Your task to perform on an android device: turn notification dots on Image 0: 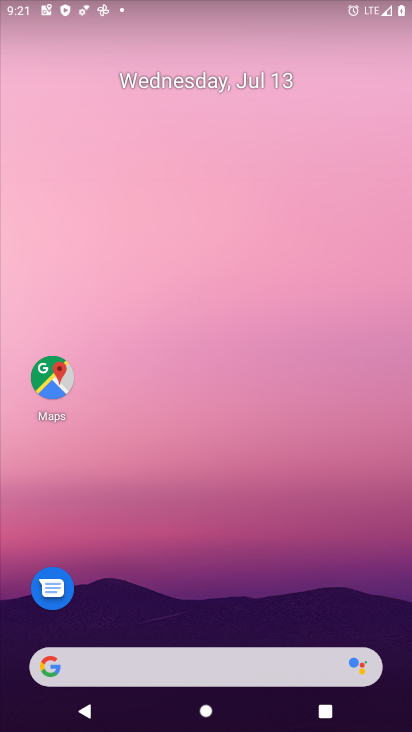
Step 0: drag from (150, 679) to (283, 35)
Your task to perform on an android device: turn notification dots on Image 1: 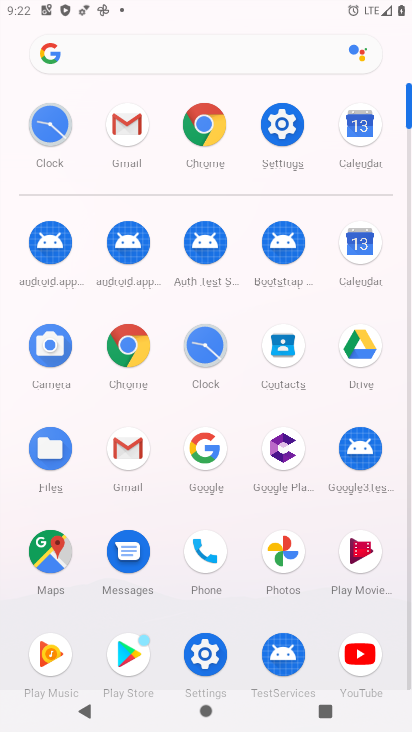
Step 1: click (264, 132)
Your task to perform on an android device: turn notification dots on Image 2: 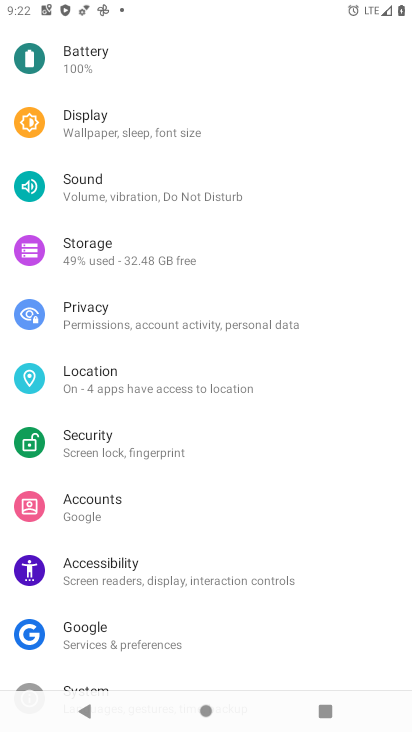
Step 2: drag from (249, 581) to (285, 288)
Your task to perform on an android device: turn notification dots on Image 3: 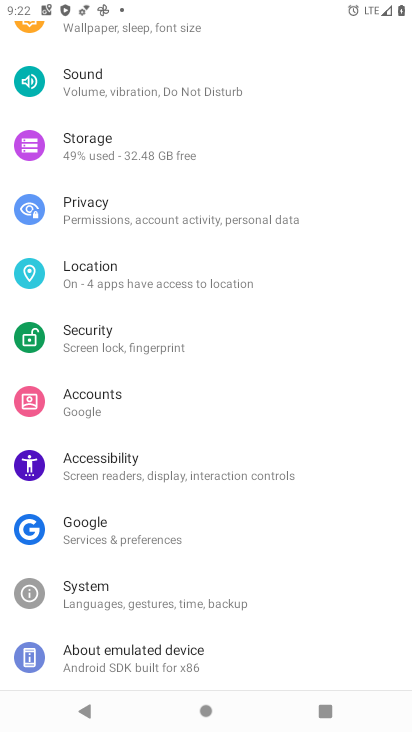
Step 3: drag from (284, 605) to (338, 155)
Your task to perform on an android device: turn notification dots on Image 4: 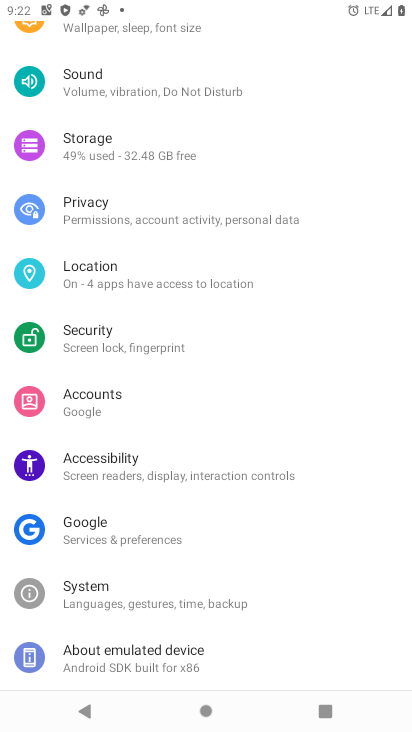
Step 4: drag from (281, 171) to (169, 682)
Your task to perform on an android device: turn notification dots on Image 5: 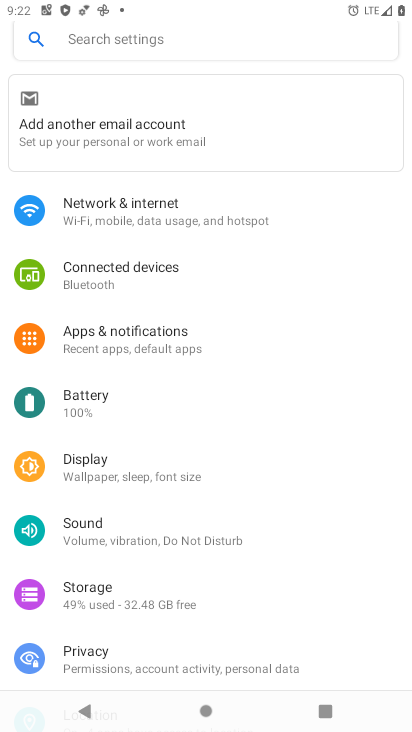
Step 5: click (191, 331)
Your task to perform on an android device: turn notification dots on Image 6: 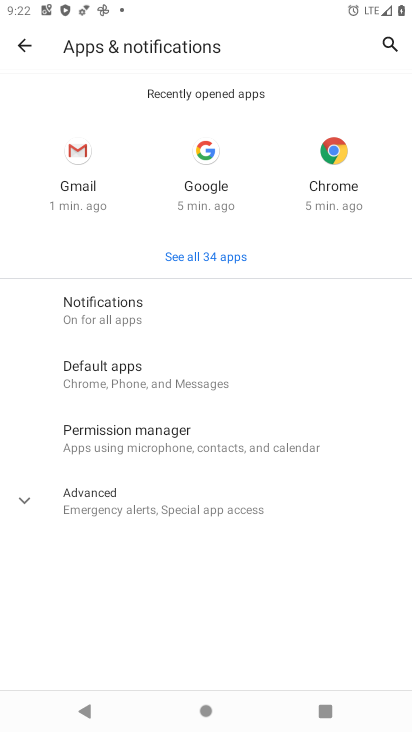
Step 6: click (202, 283)
Your task to perform on an android device: turn notification dots on Image 7: 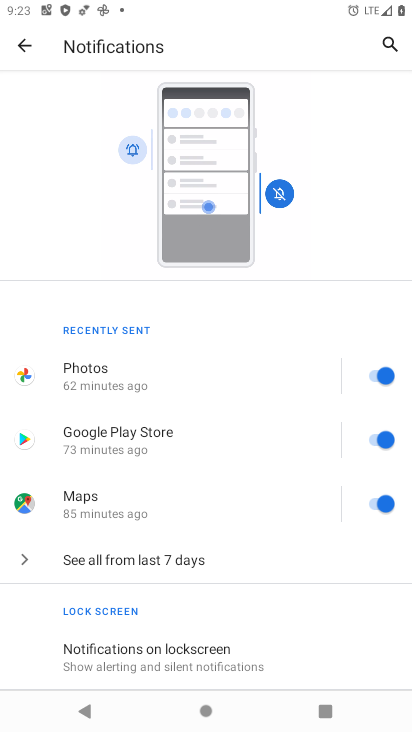
Step 7: drag from (276, 510) to (324, 42)
Your task to perform on an android device: turn notification dots on Image 8: 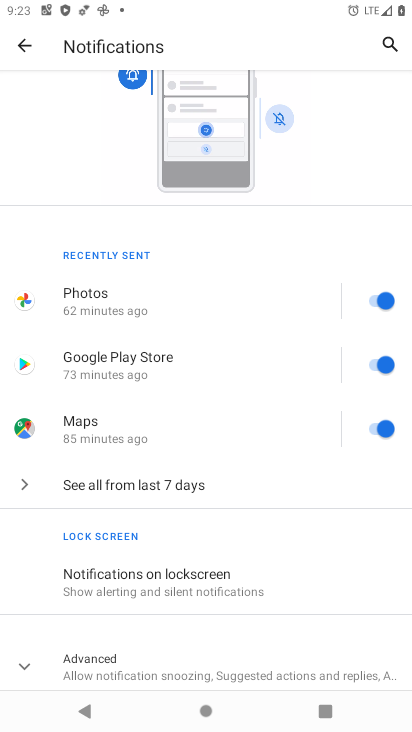
Step 8: drag from (261, 530) to (282, 107)
Your task to perform on an android device: turn notification dots on Image 9: 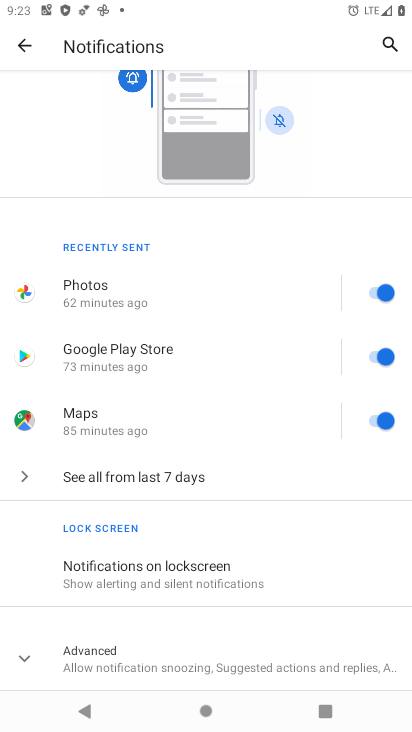
Step 9: click (275, 667)
Your task to perform on an android device: turn notification dots on Image 10: 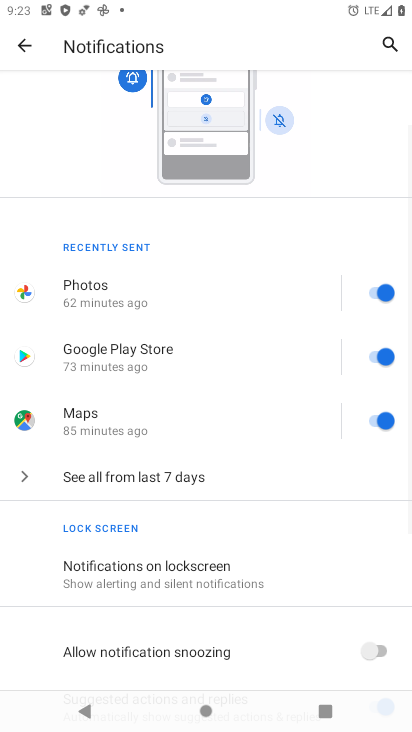
Step 10: task complete